Your task to perform on an android device: Open settings Image 0: 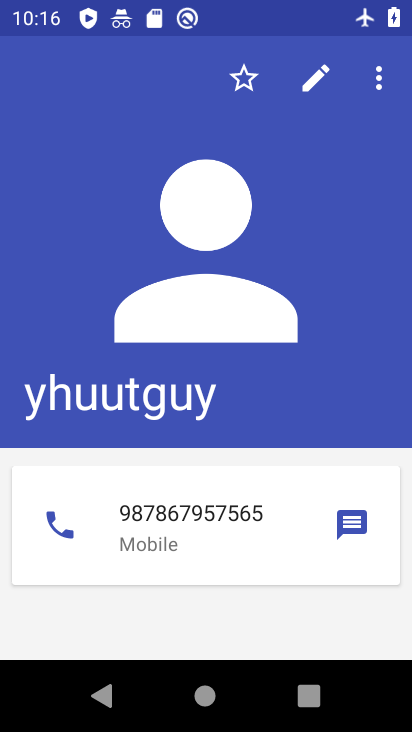
Step 0: press home button
Your task to perform on an android device: Open settings Image 1: 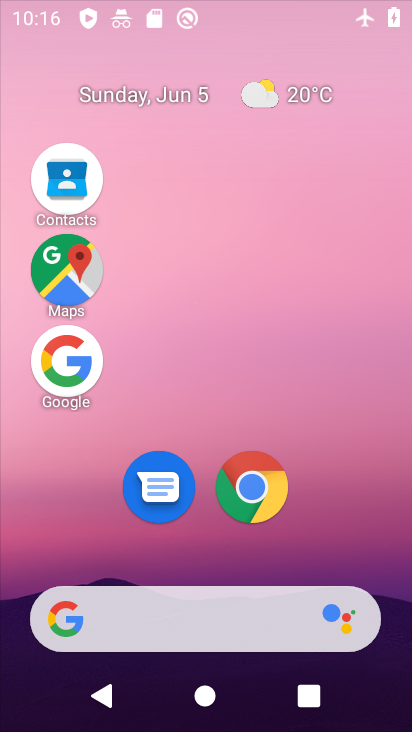
Step 1: drag from (220, 617) to (252, 53)
Your task to perform on an android device: Open settings Image 2: 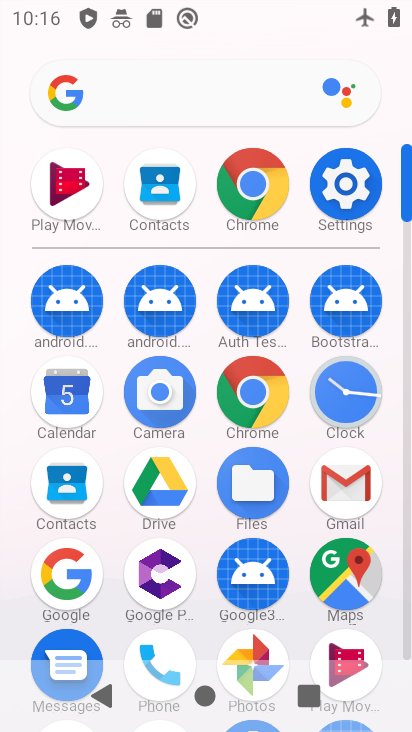
Step 2: click (358, 196)
Your task to perform on an android device: Open settings Image 3: 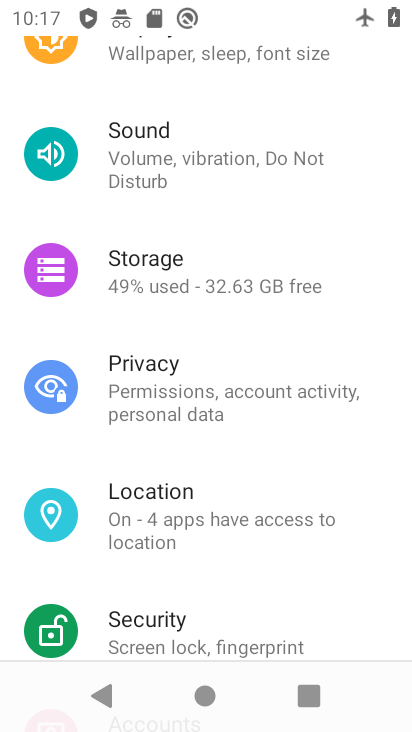
Step 3: task complete